Your task to perform on an android device: turn vacation reply on in the gmail app Image 0: 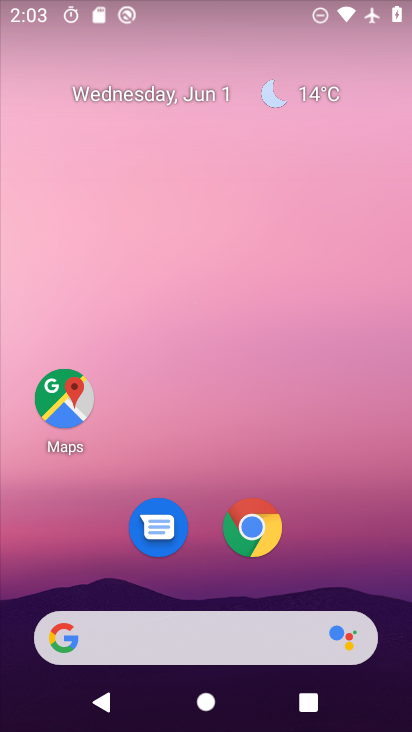
Step 0: drag from (242, 657) to (278, 54)
Your task to perform on an android device: turn vacation reply on in the gmail app Image 1: 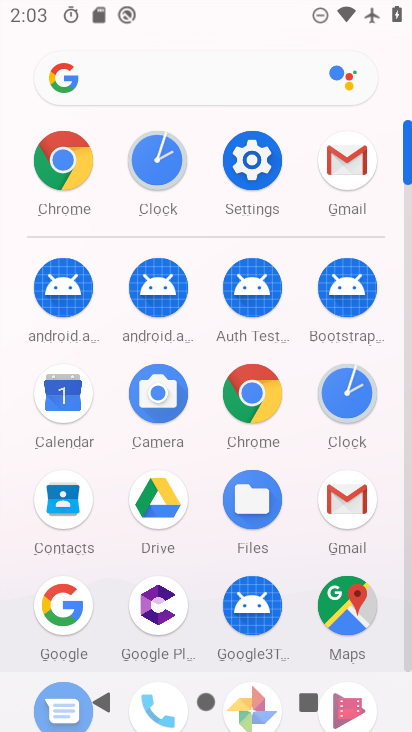
Step 1: click (345, 518)
Your task to perform on an android device: turn vacation reply on in the gmail app Image 2: 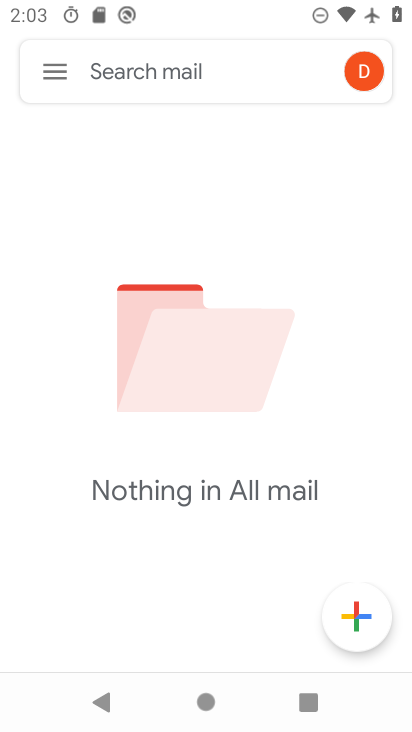
Step 2: click (64, 82)
Your task to perform on an android device: turn vacation reply on in the gmail app Image 3: 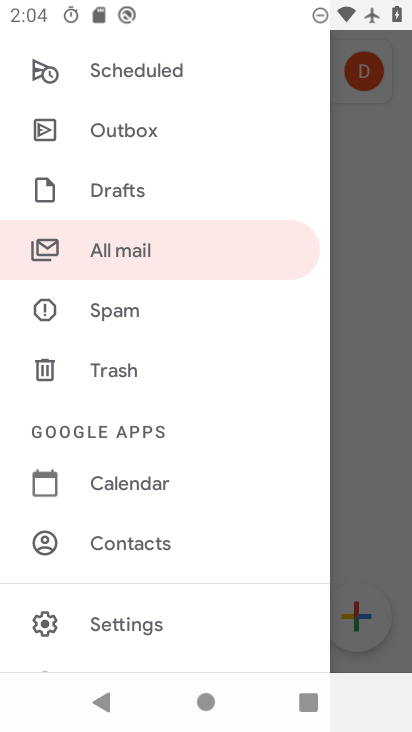
Step 3: click (130, 638)
Your task to perform on an android device: turn vacation reply on in the gmail app Image 4: 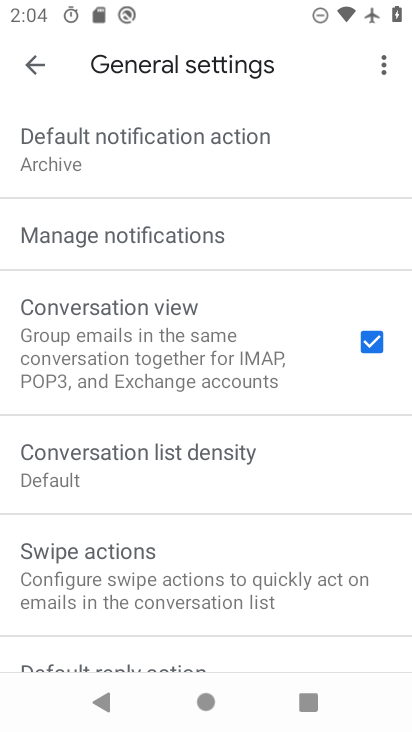
Step 4: click (28, 75)
Your task to perform on an android device: turn vacation reply on in the gmail app Image 5: 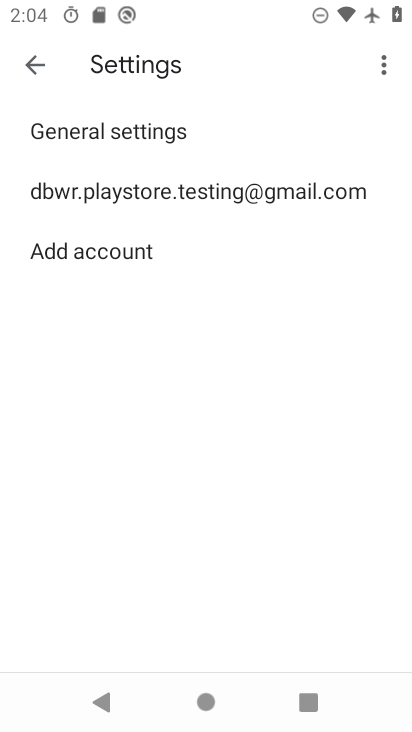
Step 5: click (183, 216)
Your task to perform on an android device: turn vacation reply on in the gmail app Image 6: 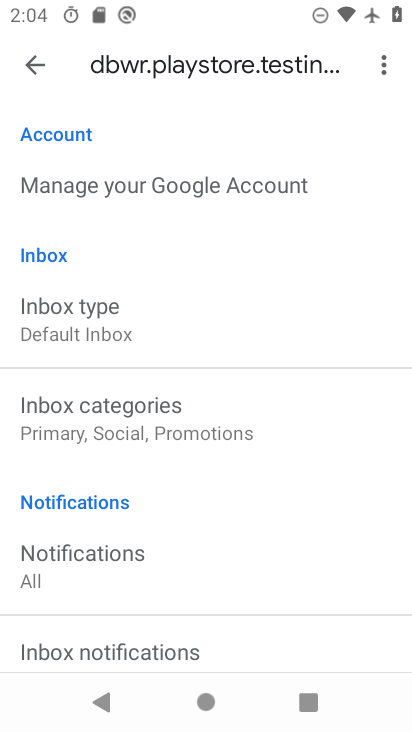
Step 6: drag from (86, 489) to (107, 95)
Your task to perform on an android device: turn vacation reply on in the gmail app Image 7: 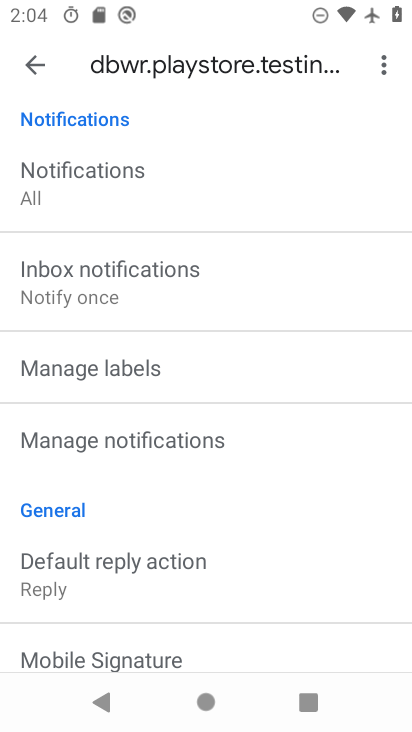
Step 7: drag from (120, 514) to (146, 148)
Your task to perform on an android device: turn vacation reply on in the gmail app Image 8: 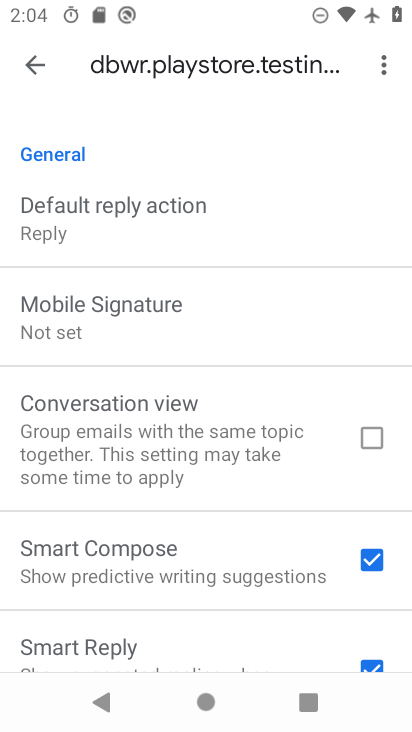
Step 8: drag from (155, 537) to (173, 175)
Your task to perform on an android device: turn vacation reply on in the gmail app Image 9: 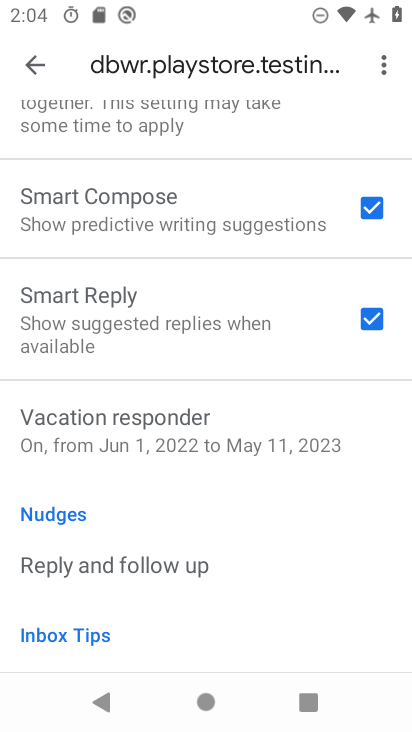
Step 9: click (180, 421)
Your task to perform on an android device: turn vacation reply on in the gmail app Image 10: 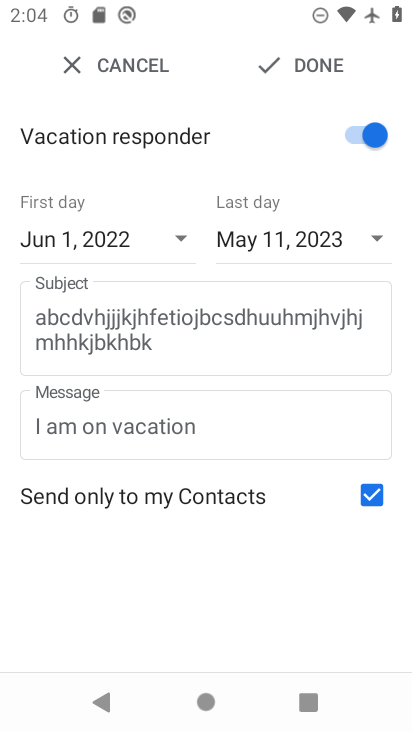
Step 10: task complete